Your task to perform on an android device: Open Google Image 0: 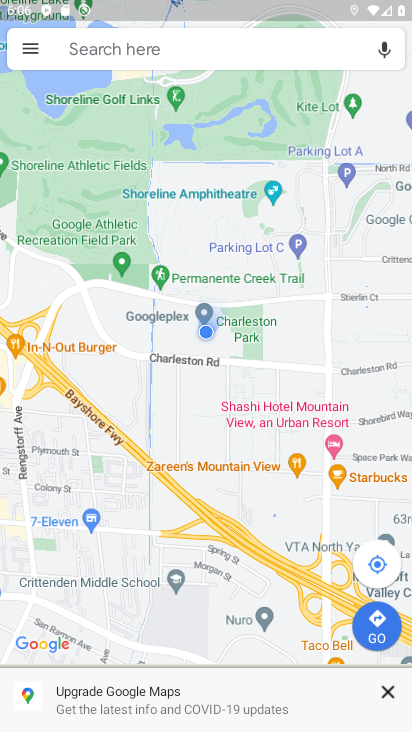
Step 0: press back button
Your task to perform on an android device: Open Google Image 1: 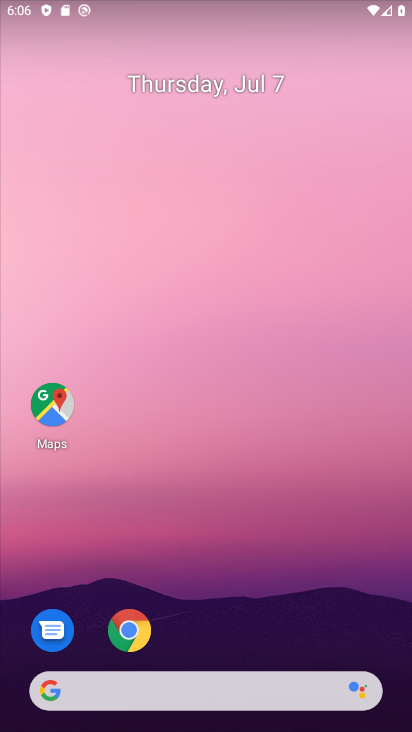
Step 1: click (207, 685)
Your task to perform on an android device: Open Google Image 2: 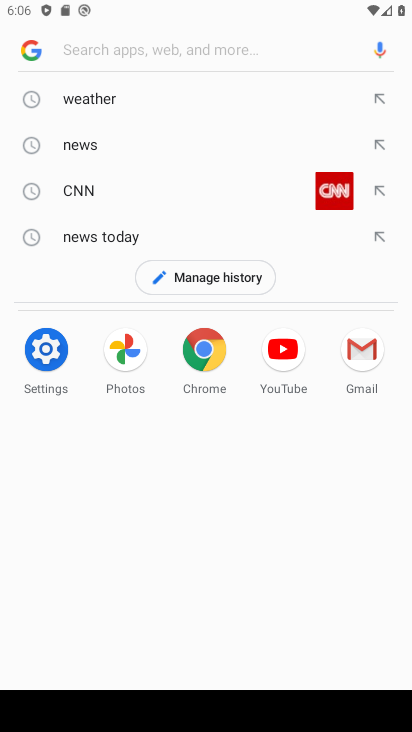
Step 2: task complete